Your task to perform on an android device: turn on translation in the chrome app Image 0: 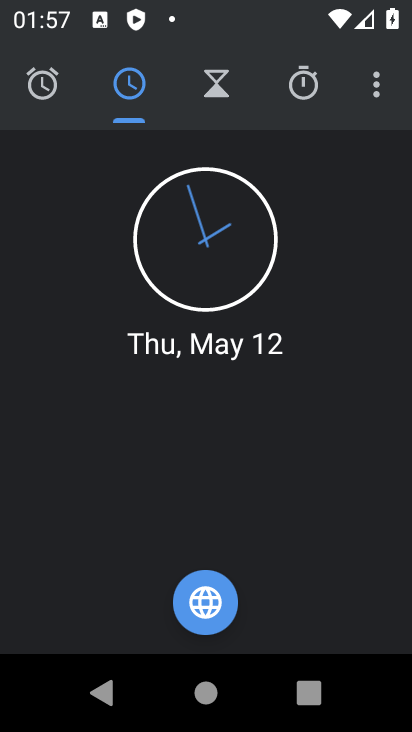
Step 0: click (362, 83)
Your task to perform on an android device: turn on translation in the chrome app Image 1: 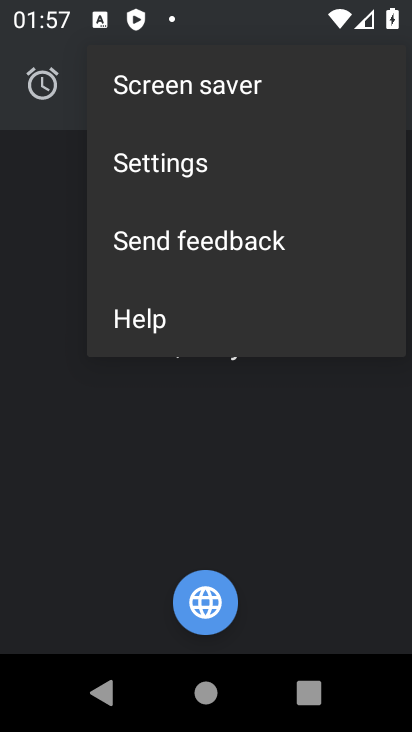
Step 1: click (174, 161)
Your task to perform on an android device: turn on translation in the chrome app Image 2: 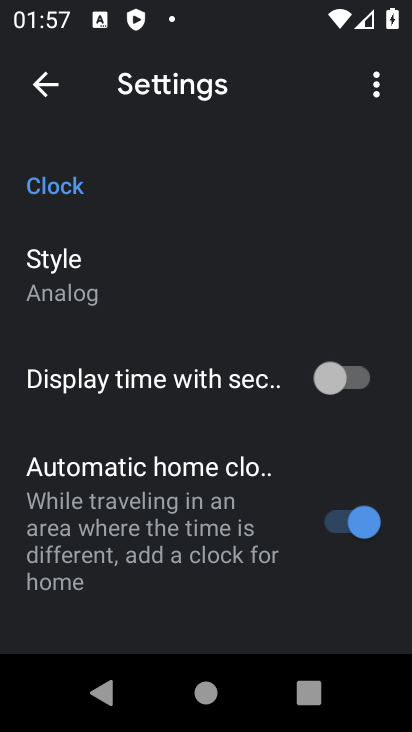
Step 2: drag from (155, 491) to (212, 354)
Your task to perform on an android device: turn on translation in the chrome app Image 3: 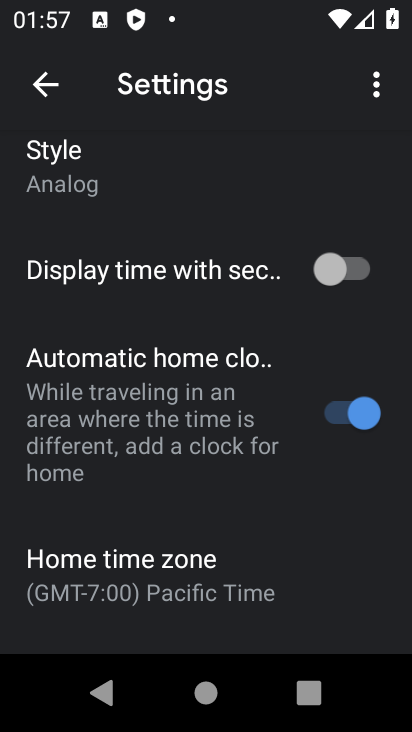
Step 3: press home button
Your task to perform on an android device: turn on translation in the chrome app Image 4: 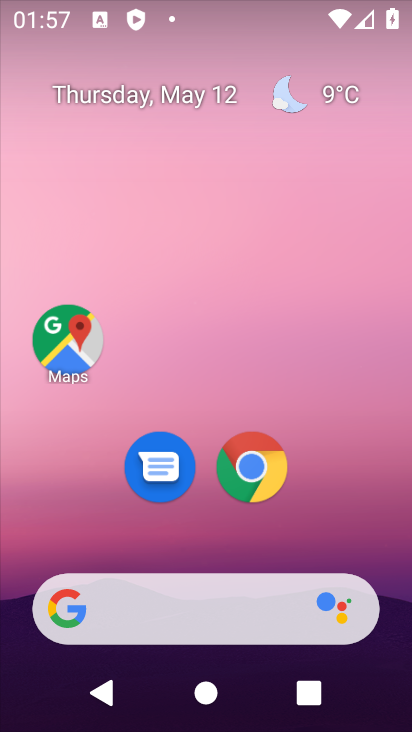
Step 4: click (255, 455)
Your task to perform on an android device: turn on translation in the chrome app Image 5: 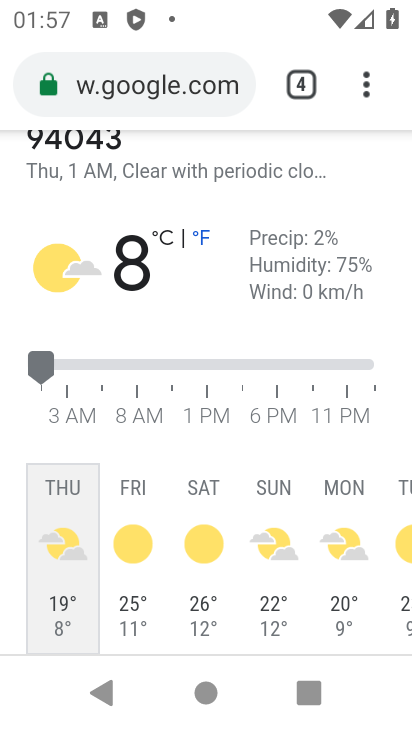
Step 5: click (348, 81)
Your task to perform on an android device: turn on translation in the chrome app Image 6: 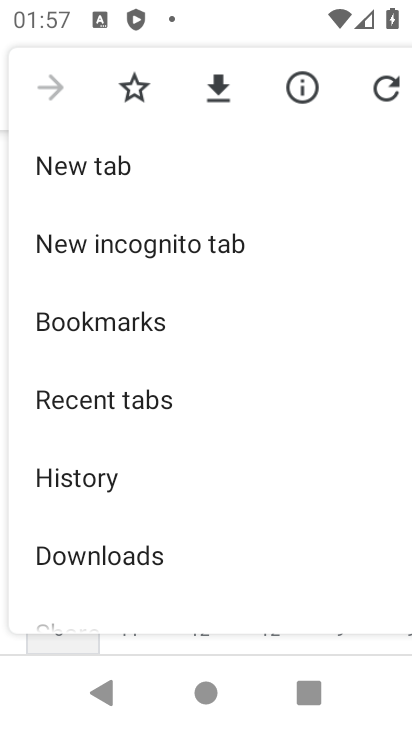
Step 6: drag from (71, 529) to (141, 209)
Your task to perform on an android device: turn on translation in the chrome app Image 7: 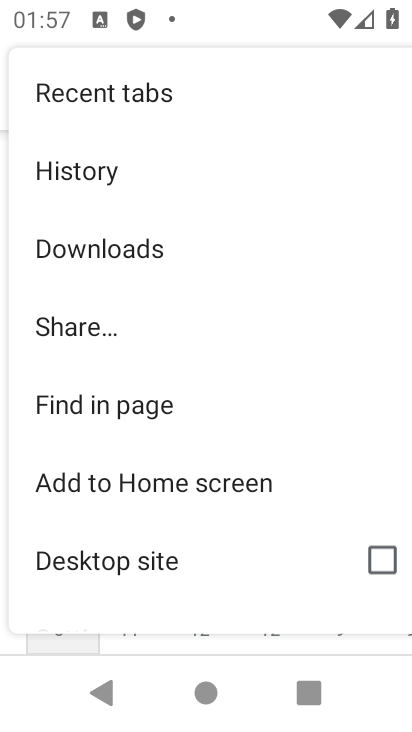
Step 7: drag from (115, 588) to (219, 292)
Your task to perform on an android device: turn on translation in the chrome app Image 8: 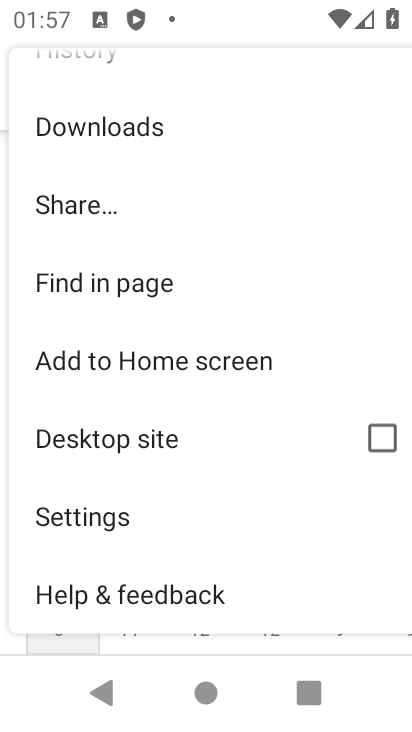
Step 8: click (82, 513)
Your task to perform on an android device: turn on translation in the chrome app Image 9: 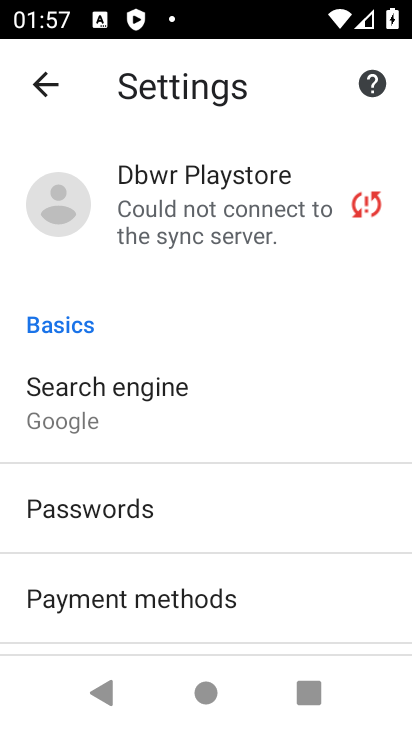
Step 9: drag from (194, 593) to (251, 274)
Your task to perform on an android device: turn on translation in the chrome app Image 10: 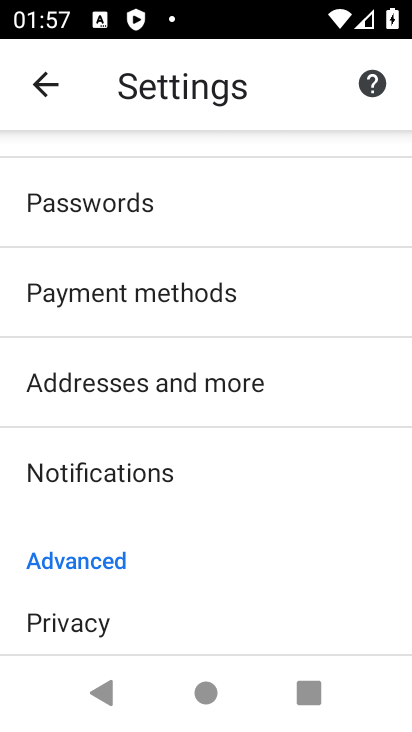
Step 10: drag from (190, 593) to (303, 248)
Your task to perform on an android device: turn on translation in the chrome app Image 11: 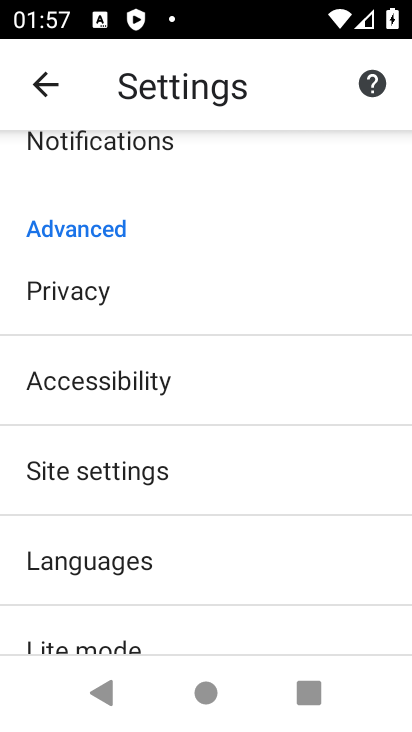
Step 11: click (104, 544)
Your task to perform on an android device: turn on translation in the chrome app Image 12: 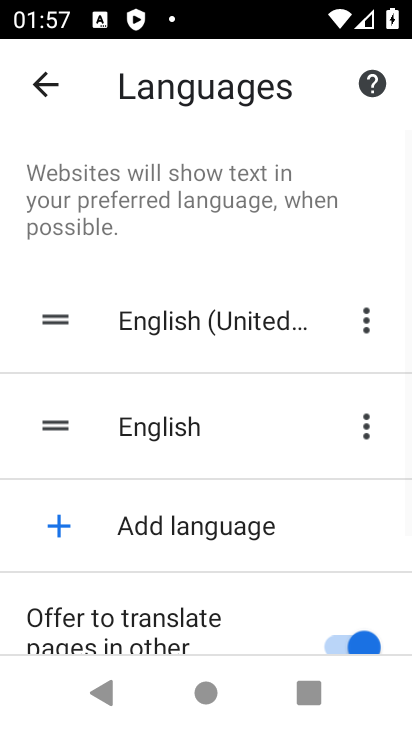
Step 12: task complete